Your task to perform on an android device: toggle javascript in the chrome app Image 0: 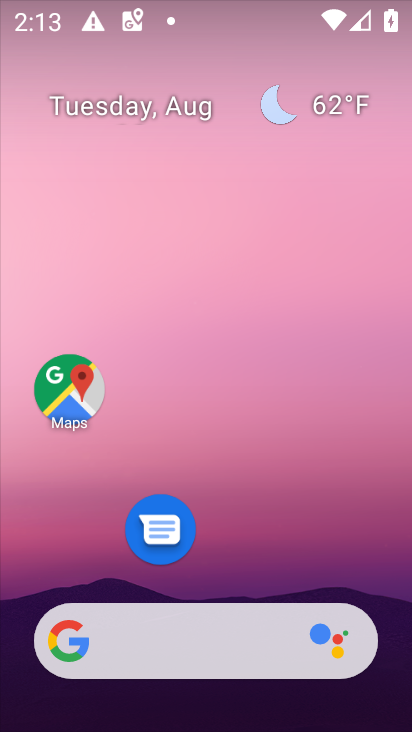
Step 0: drag from (286, 596) to (285, 143)
Your task to perform on an android device: toggle javascript in the chrome app Image 1: 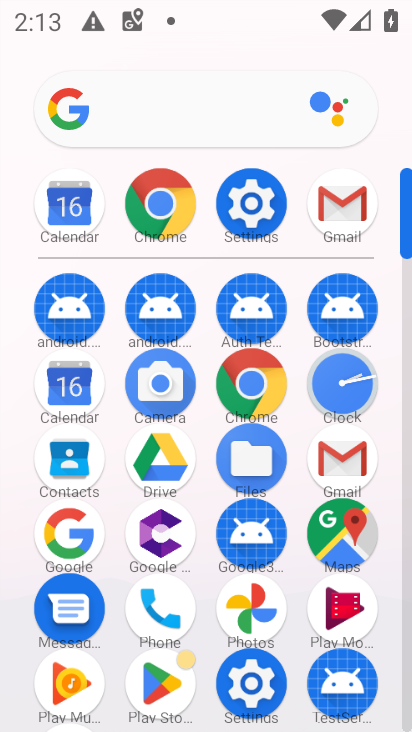
Step 1: click (155, 211)
Your task to perform on an android device: toggle javascript in the chrome app Image 2: 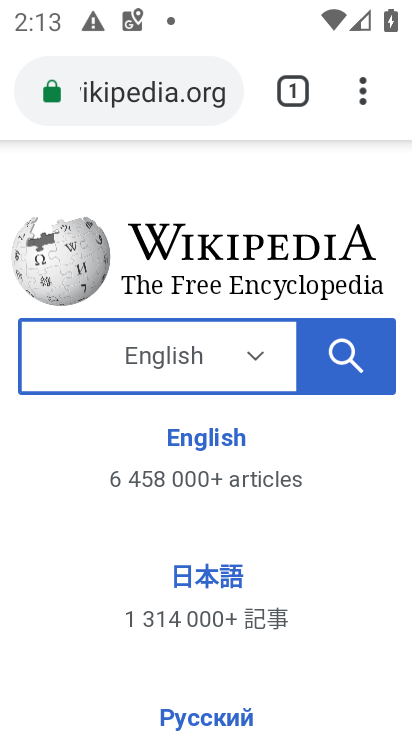
Step 2: click (155, 211)
Your task to perform on an android device: toggle javascript in the chrome app Image 3: 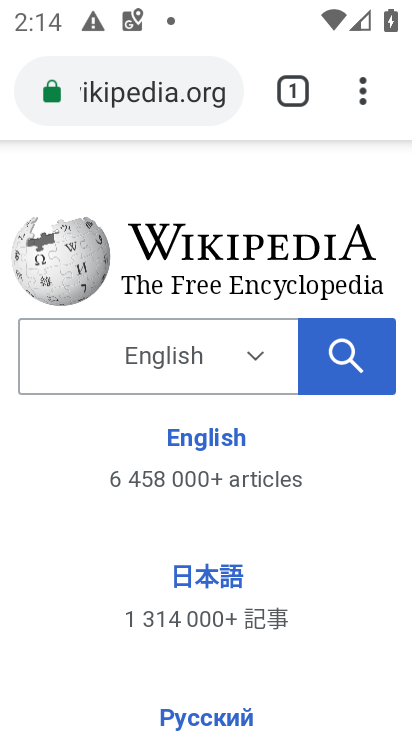
Step 3: click (361, 77)
Your task to perform on an android device: toggle javascript in the chrome app Image 4: 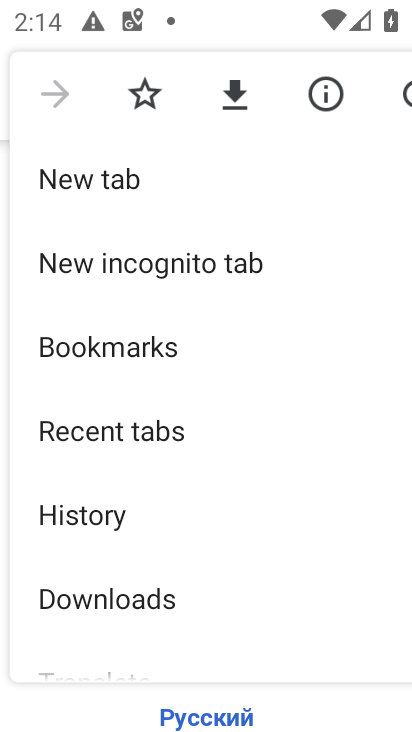
Step 4: drag from (193, 560) to (206, 403)
Your task to perform on an android device: toggle javascript in the chrome app Image 5: 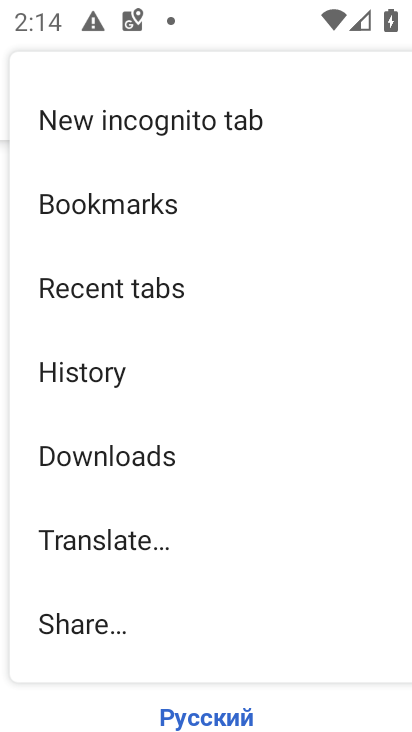
Step 5: drag from (172, 547) to (77, 671)
Your task to perform on an android device: toggle javascript in the chrome app Image 6: 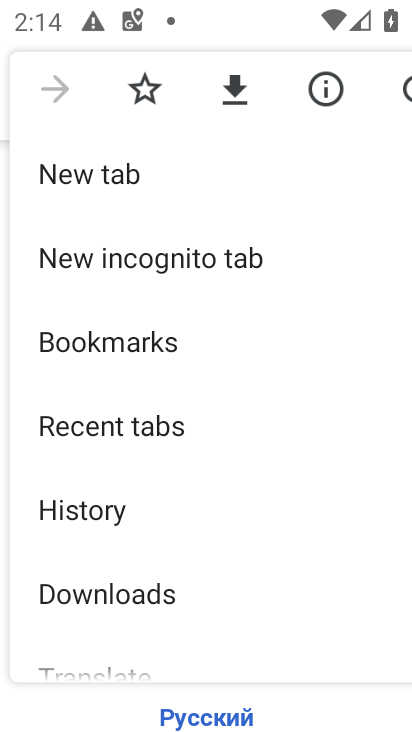
Step 6: drag from (77, 671) to (82, 473)
Your task to perform on an android device: toggle javascript in the chrome app Image 7: 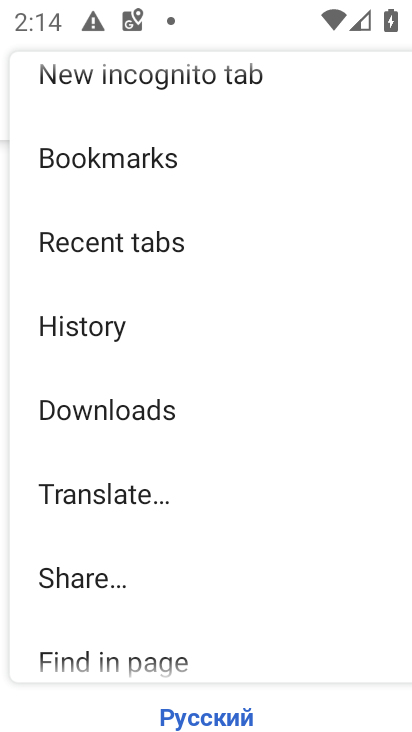
Step 7: click (82, 473)
Your task to perform on an android device: toggle javascript in the chrome app Image 8: 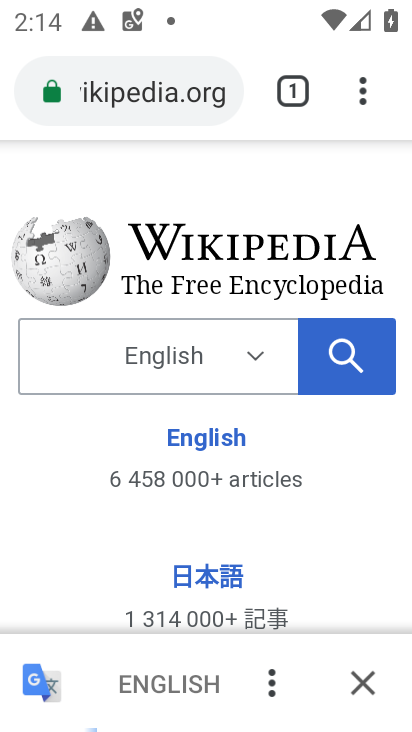
Step 8: click (82, 473)
Your task to perform on an android device: toggle javascript in the chrome app Image 9: 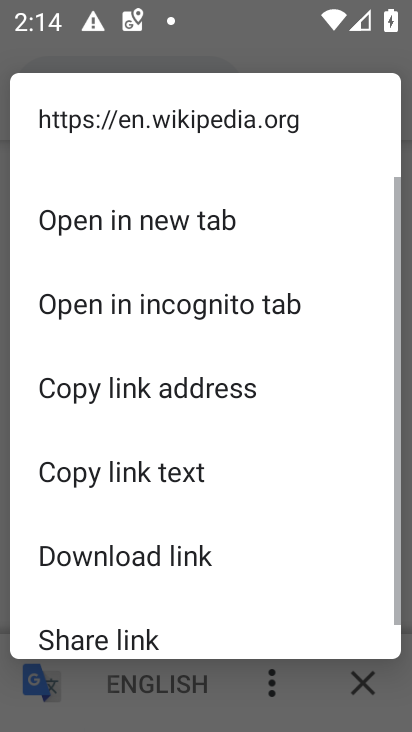
Step 9: click (76, 480)
Your task to perform on an android device: toggle javascript in the chrome app Image 10: 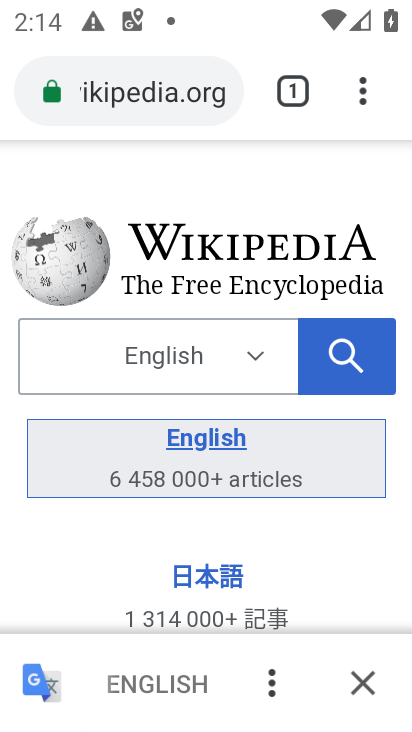
Step 10: click (347, 114)
Your task to perform on an android device: toggle javascript in the chrome app Image 11: 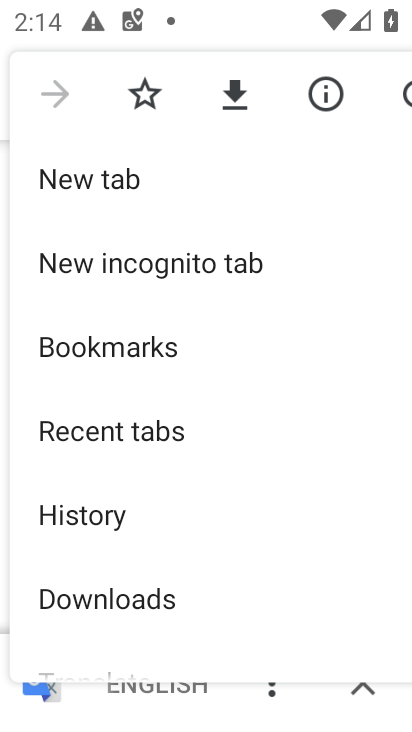
Step 11: drag from (230, 606) to (240, 308)
Your task to perform on an android device: toggle javascript in the chrome app Image 12: 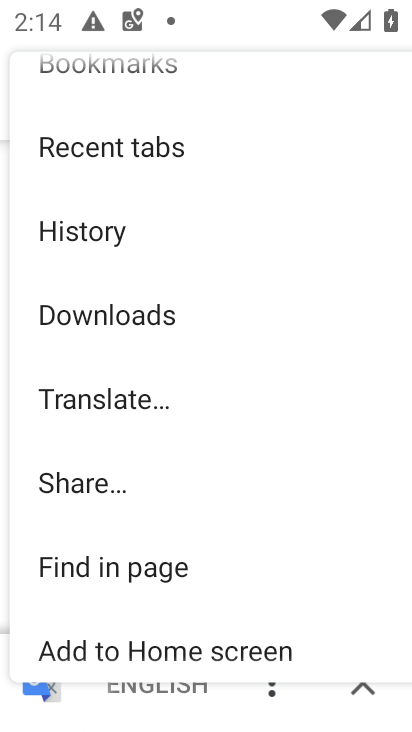
Step 12: drag from (220, 604) to (261, 204)
Your task to perform on an android device: toggle javascript in the chrome app Image 13: 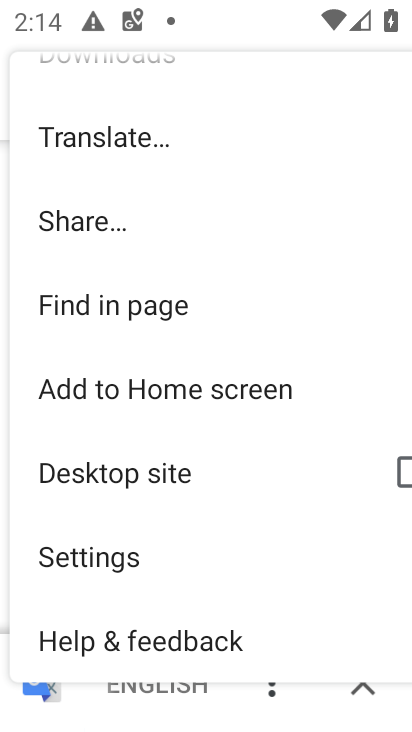
Step 13: click (186, 532)
Your task to perform on an android device: toggle javascript in the chrome app Image 14: 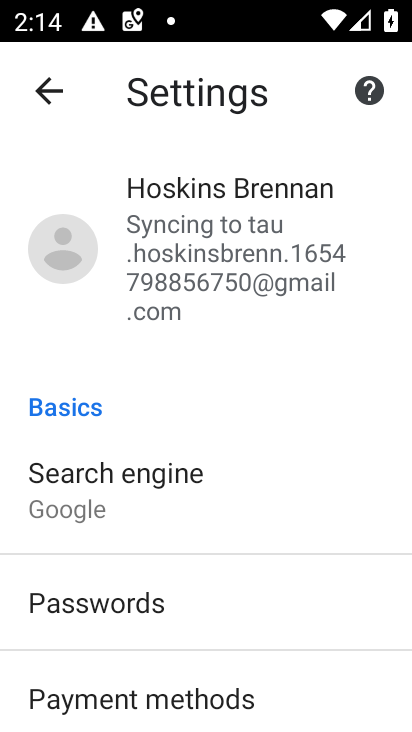
Step 14: drag from (141, 667) to (188, 237)
Your task to perform on an android device: toggle javascript in the chrome app Image 15: 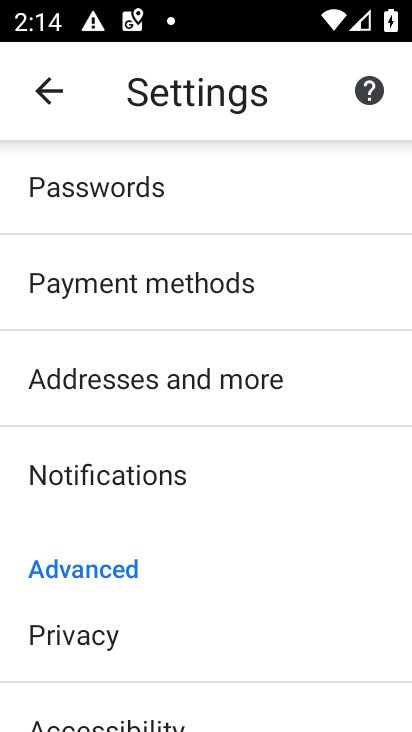
Step 15: drag from (176, 687) to (197, 408)
Your task to perform on an android device: toggle javascript in the chrome app Image 16: 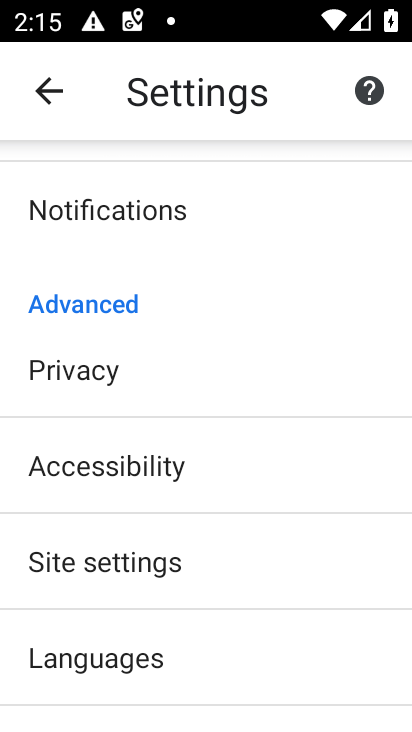
Step 16: click (197, 408)
Your task to perform on an android device: toggle javascript in the chrome app Image 17: 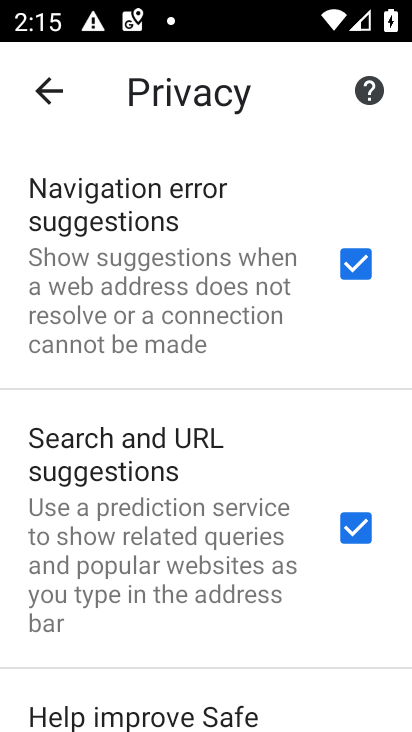
Step 17: task complete